Your task to perform on an android device: Go to ESPN.com Image 0: 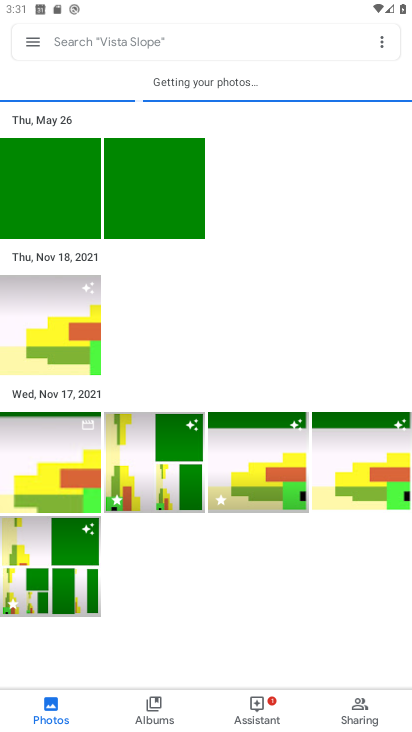
Step 0: press back button
Your task to perform on an android device: Go to ESPN.com Image 1: 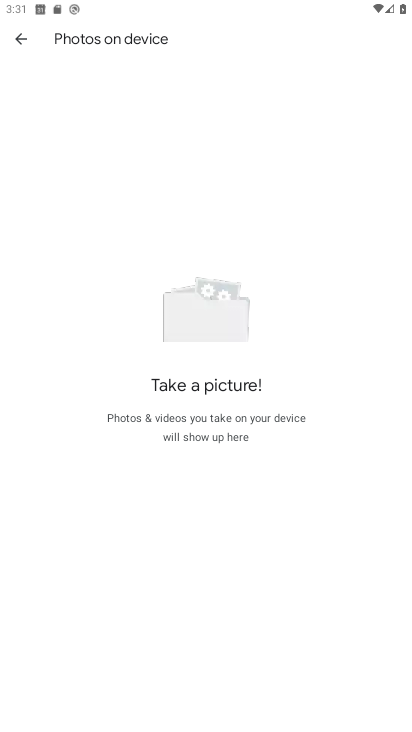
Step 1: press home button
Your task to perform on an android device: Go to ESPN.com Image 2: 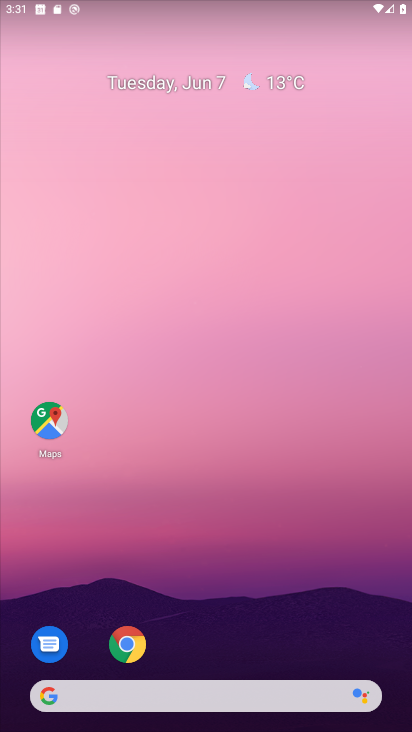
Step 2: drag from (327, 557) to (376, 145)
Your task to perform on an android device: Go to ESPN.com Image 3: 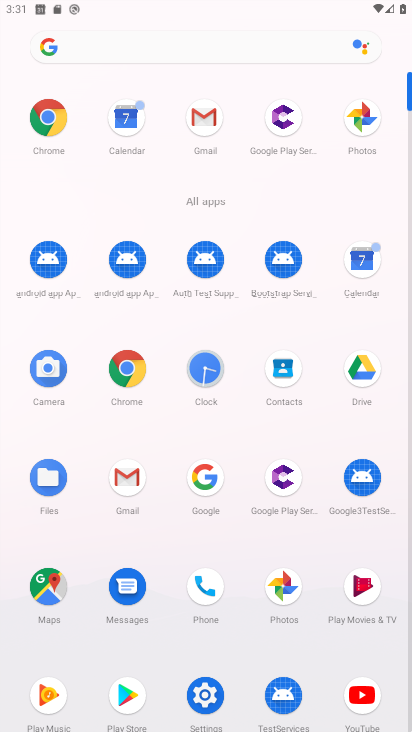
Step 3: click (128, 384)
Your task to perform on an android device: Go to ESPN.com Image 4: 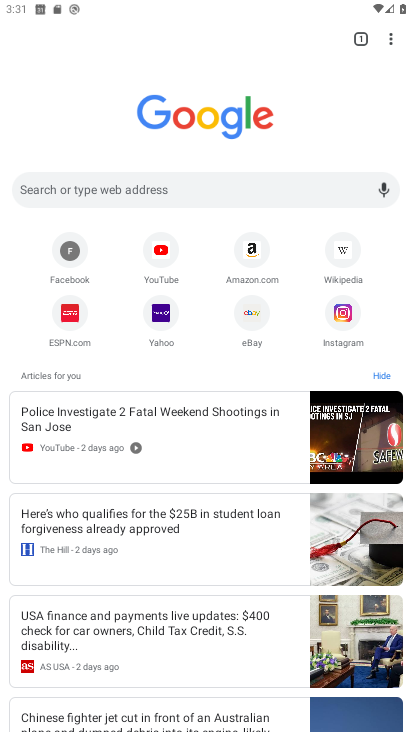
Step 4: click (80, 343)
Your task to perform on an android device: Go to ESPN.com Image 5: 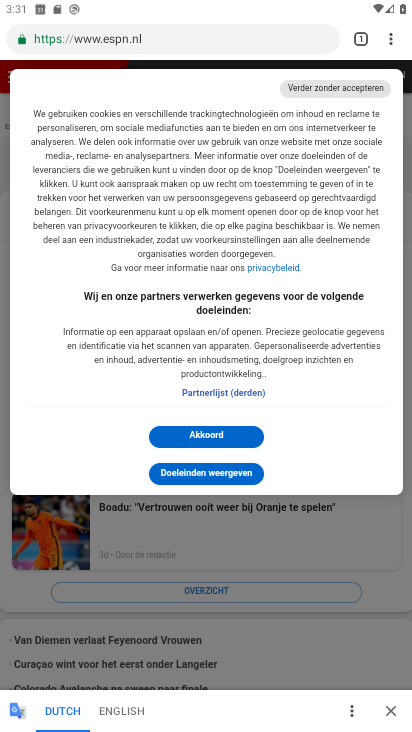
Step 5: task complete